Your task to perform on an android device: check google app version Image 0: 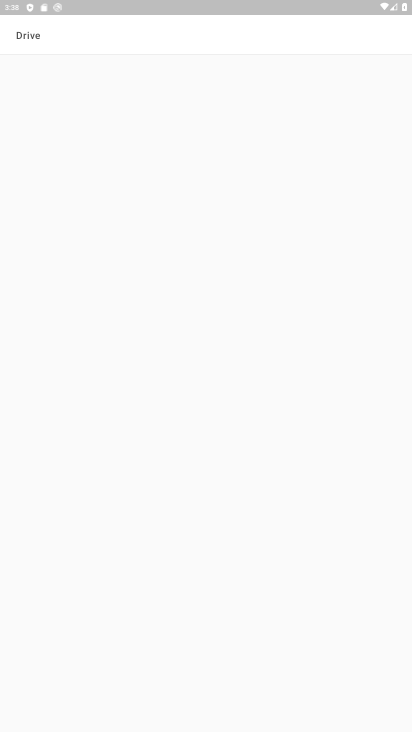
Step 0: press home button
Your task to perform on an android device: check google app version Image 1: 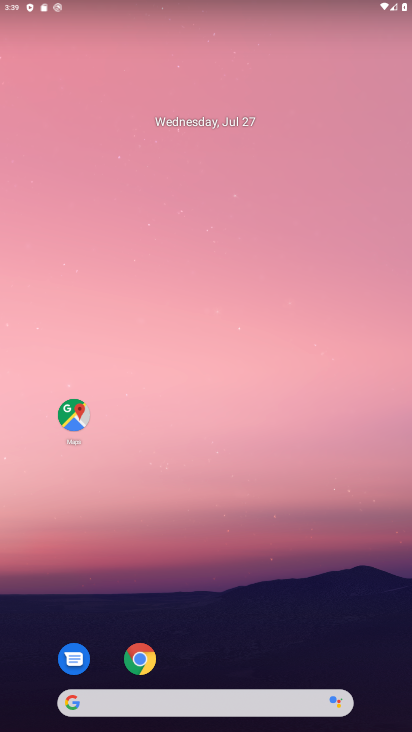
Step 1: drag from (226, 611) to (179, 12)
Your task to perform on an android device: check google app version Image 2: 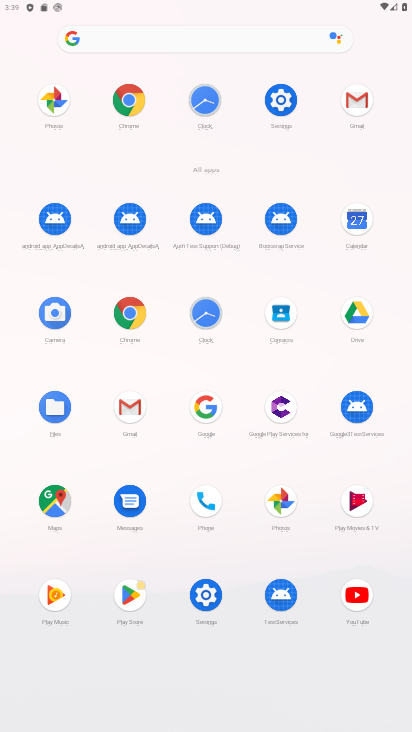
Step 2: click (206, 404)
Your task to perform on an android device: check google app version Image 3: 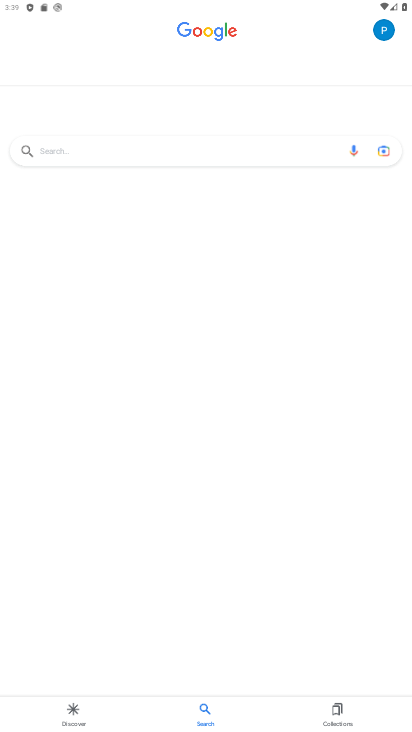
Step 3: click (383, 22)
Your task to perform on an android device: check google app version Image 4: 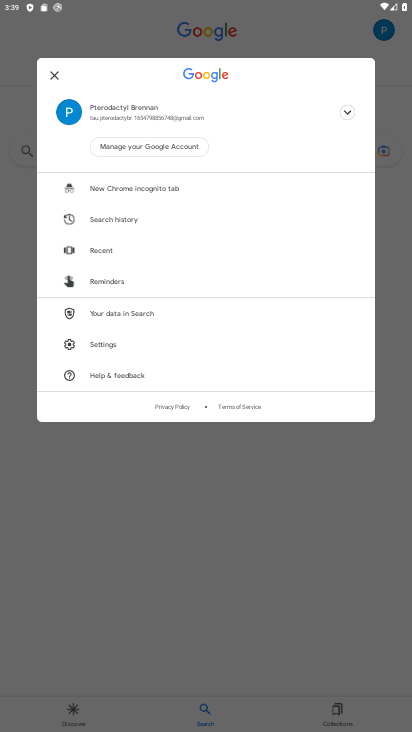
Step 4: click (104, 345)
Your task to perform on an android device: check google app version Image 5: 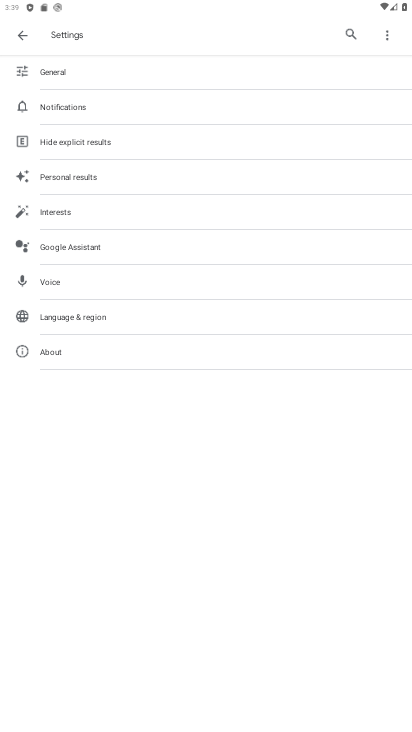
Step 5: click (108, 347)
Your task to perform on an android device: check google app version Image 6: 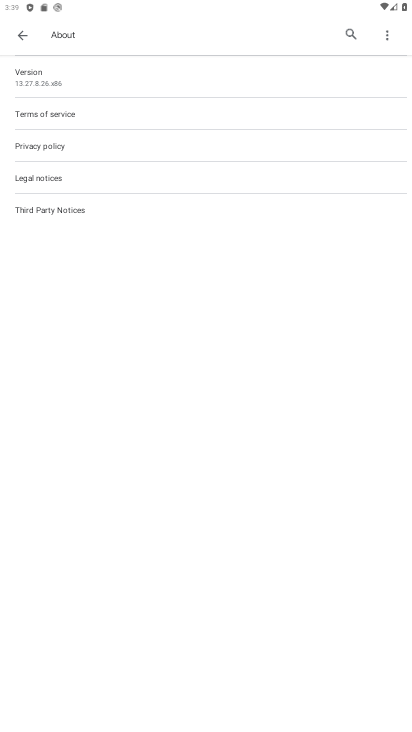
Step 6: click (47, 82)
Your task to perform on an android device: check google app version Image 7: 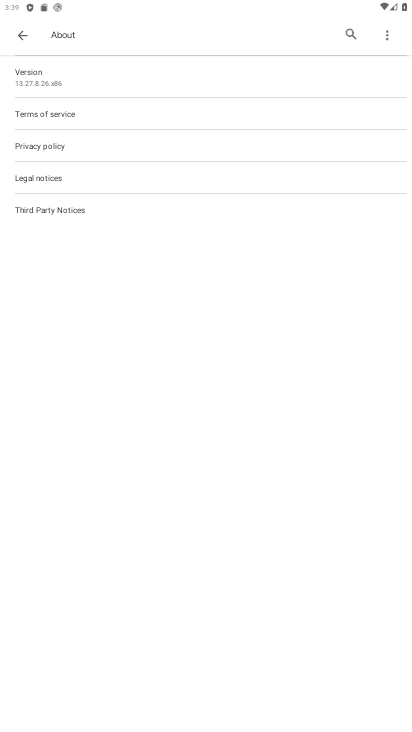
Step 7: task complete